Your task to perform on an android device: Check the news Image 0: 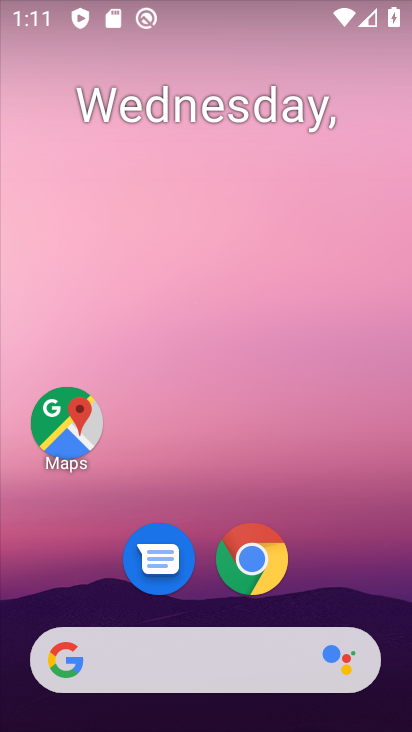
Step 0: drag from (366, 562) to (355, 96)
Your task to perform on an android device: Check the news Image 1: 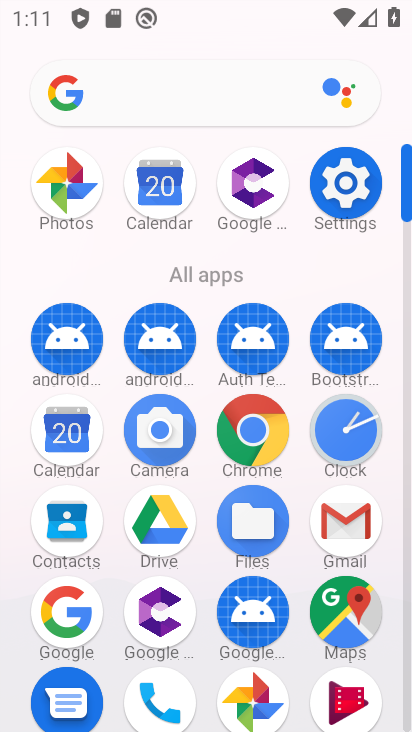
Step 1: click (259, 422)
Your task to perform on an android device: Check the news Image 2: 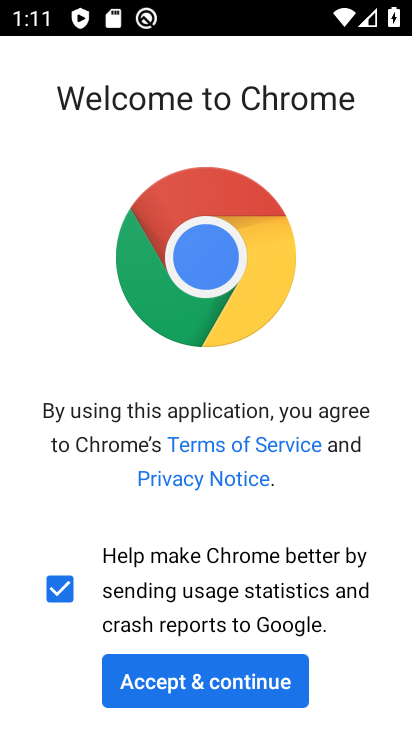
Step 2: click (284, 676)
Your task to perform on an android device: Check the news Image 3: 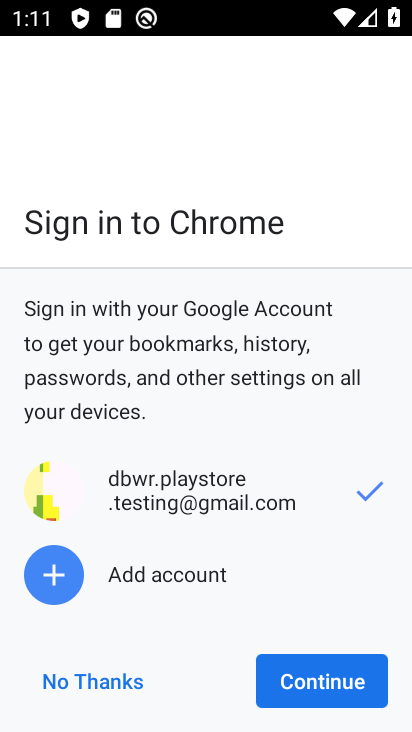
Step 3: click (313, 694)
Your task to perform on an android device: Check the news Image 4: 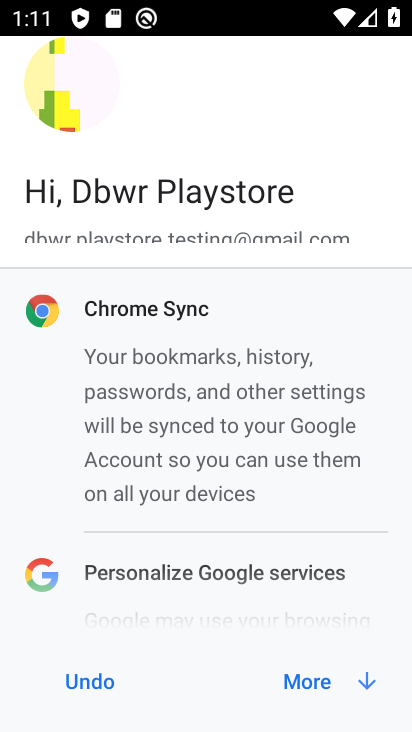
Step 4: click (334, 683)
Your task to perform on an android device: Check the news Image 5: 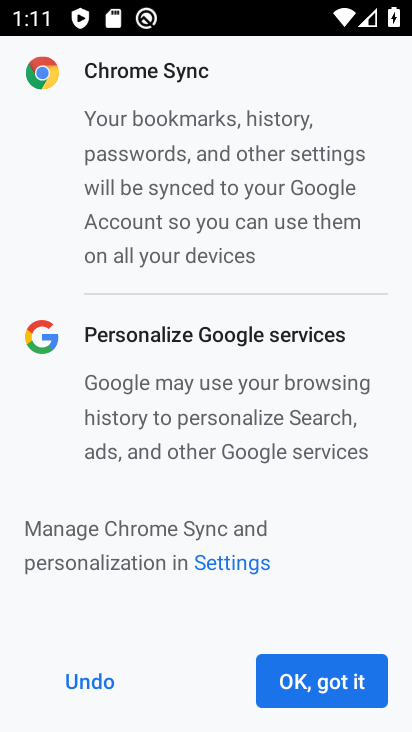
Step 5: click (334, 683)
Your task to perform on an android device: Check the news Image 6: 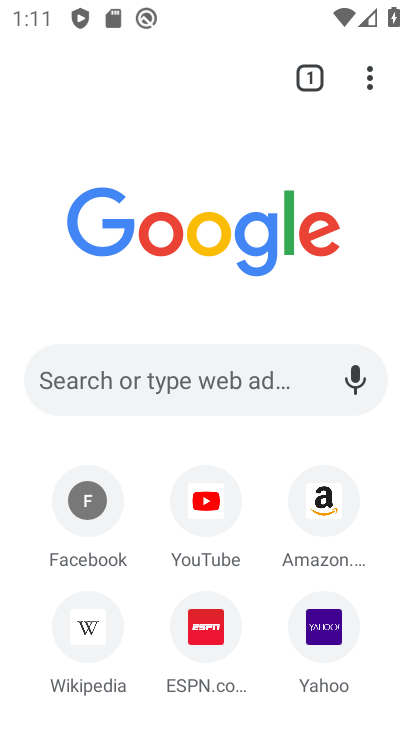
Step 6: click (222, 390)
Your task to perform on an android device: Check the news Image 7: 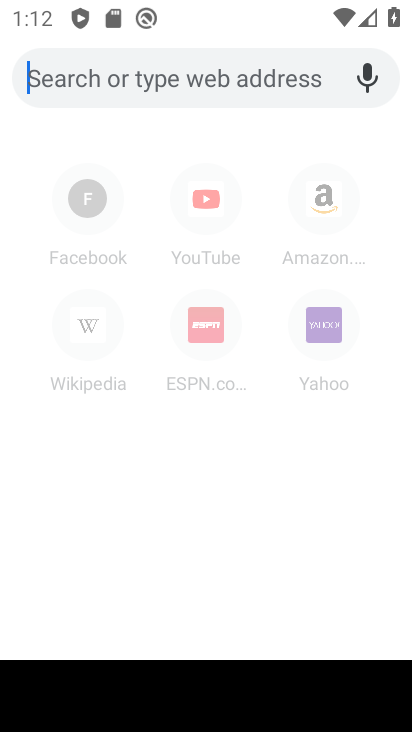
Step 7: type "news"
Your task to perform on an android device: Check the news Image 8: 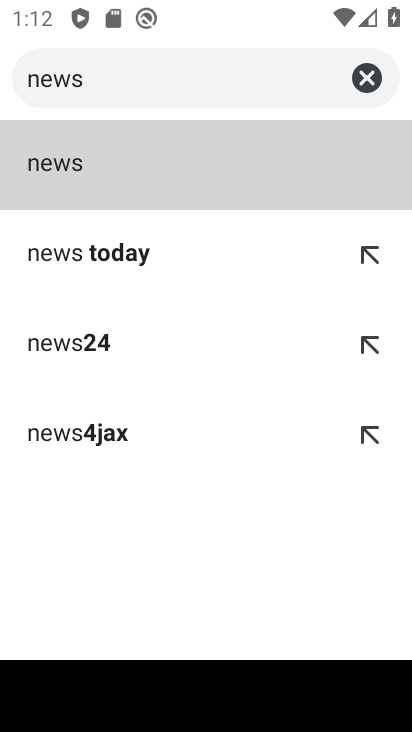
Step 8: click (59, 168)
Your task to perform on an android device: Check the news Image 9: 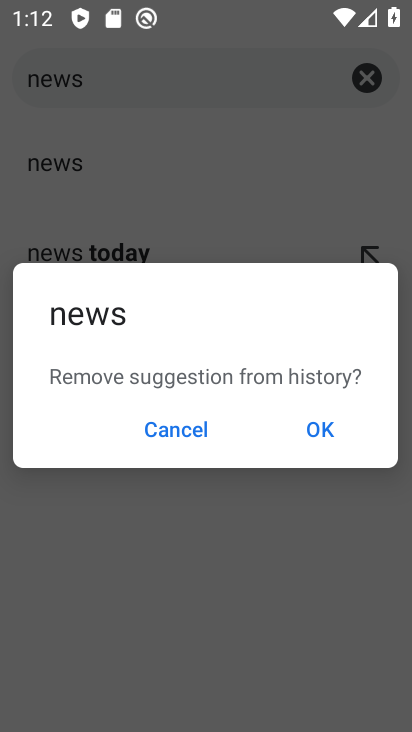
Step 9: click (369, 82)
Your task to perform on an android device: Check the news Image 10: 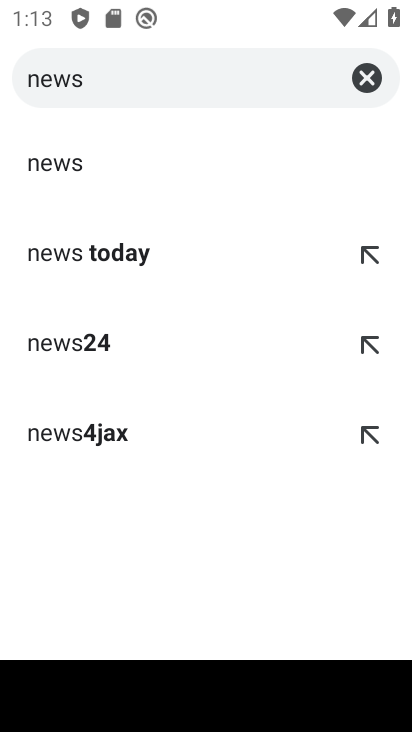
Step 10: click (53, 154)
Your task to perform on an android device: Check the news Image 11: 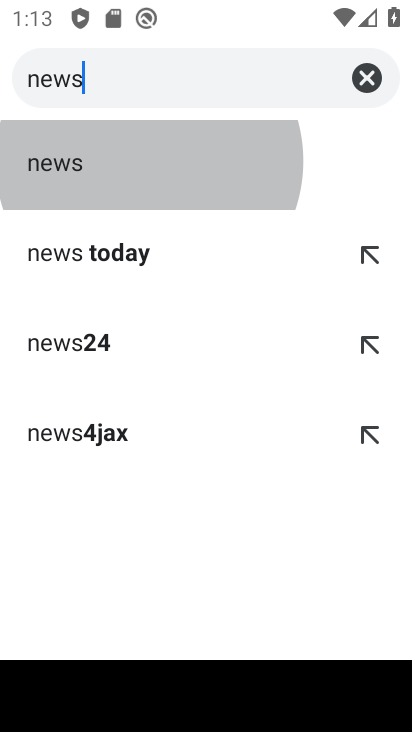
Step 11: click (114, 251)
Your task to perform on an android device: Check the news Image 12: 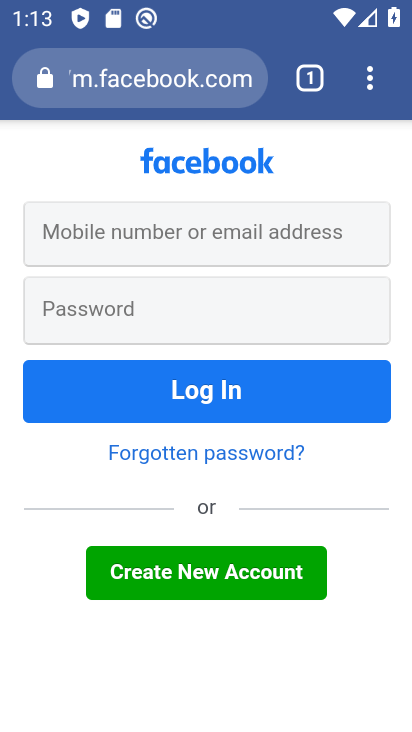
Step 12: press back button
Your task to perform on an android device: Check the news Image 13: 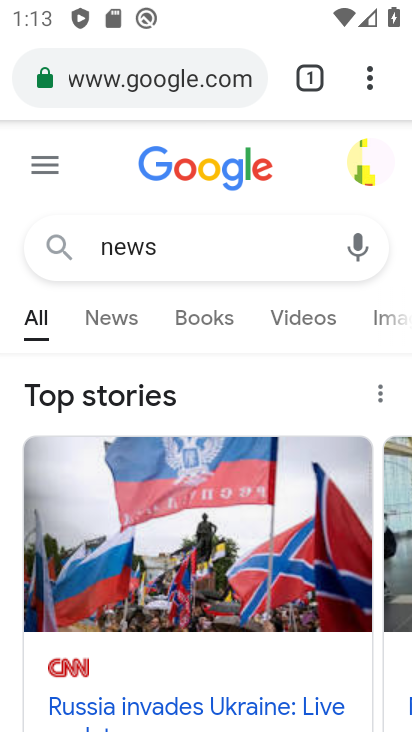
Step 13: click (188, 72)
Your task to perform on an android device: Check the news Image 14: 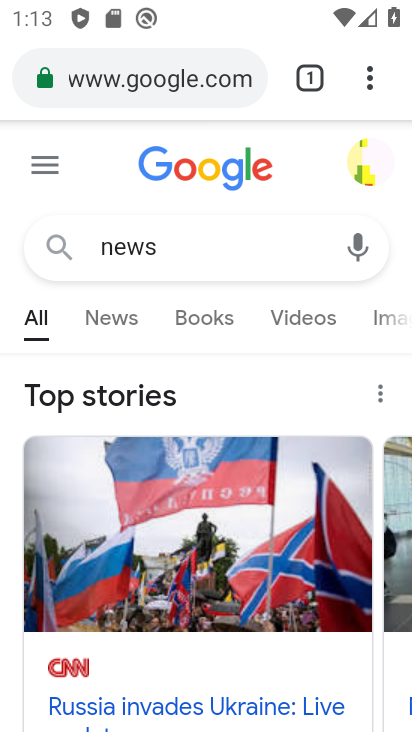
Step 14: click (207, 79)
Your task to perform on an android device: Check the news Image 15: 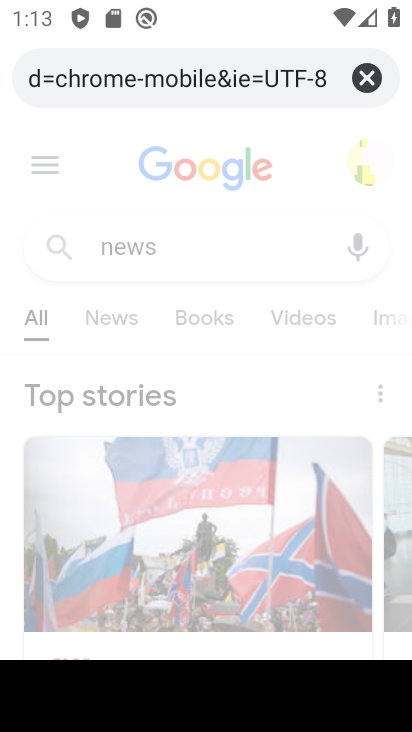
Step 15: click (359, 75)
Your task to perform on an android device: Check the news Image 16: 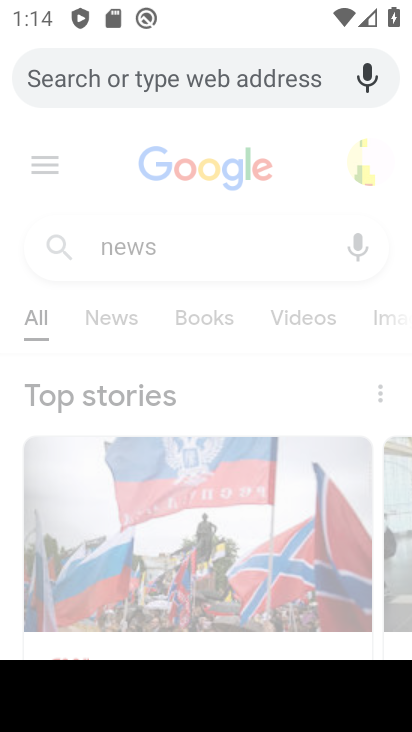
Step 16: type " news"
Your task to perform on an android device: Check the news Image 17: 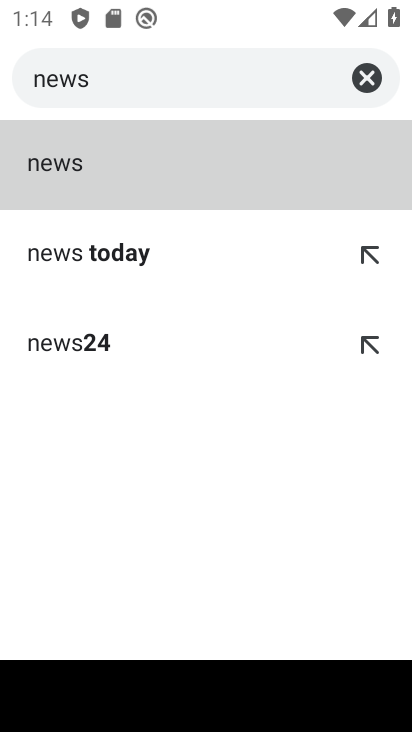
Step 17: click (54, 162)
Your task to perform on an android device: Check the news Image 18: 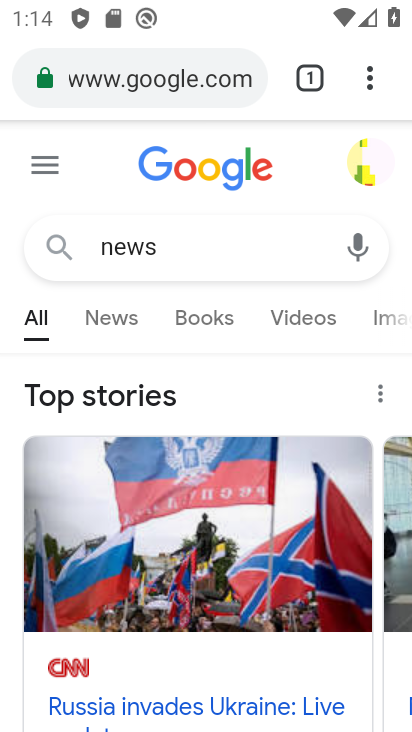
Step 18: click (111, 317)
Your task to perform on an android device: Check the news Image 19: 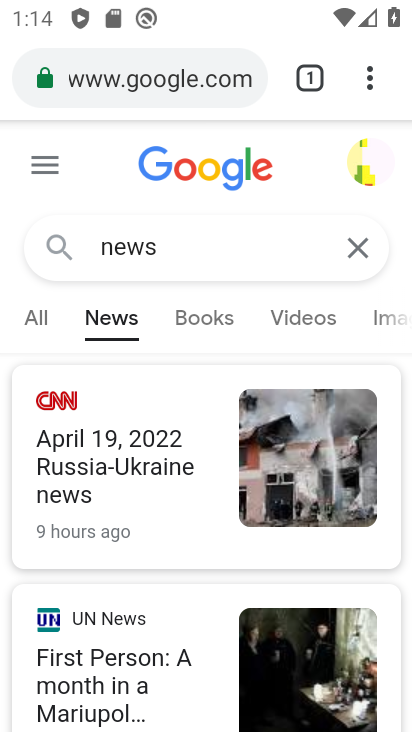
Step 19: task complete